Your task to perform on an android device: Search for Mexican restaurants on Maps Image 0: 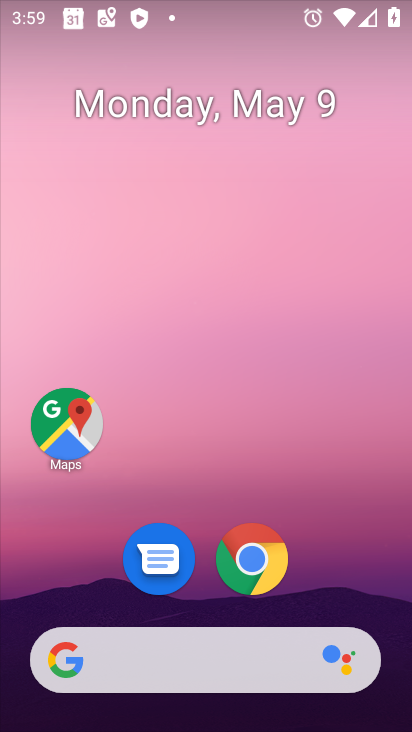
Step 0: drag from (210, 724) to (231, 229)
Your task to perform on an android device: Search for Mexican restaurants on Maps Image 1: 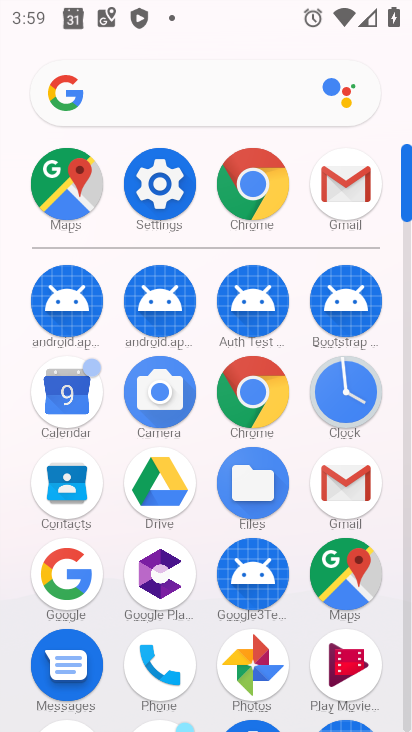
Step 1: click (342, 571)
Your task to perform on an android device: Search for Mexican restaurants on Maps Image 2: 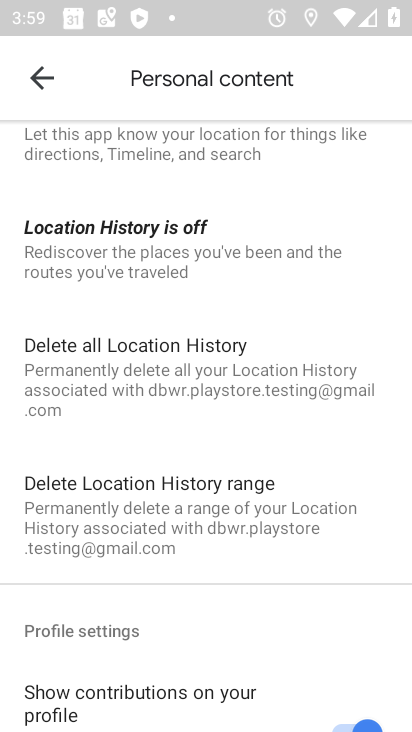
Step 2: click (42, 66)
Your task to perform on an android device: Search for Mexican restaurants on Maps Image 3: 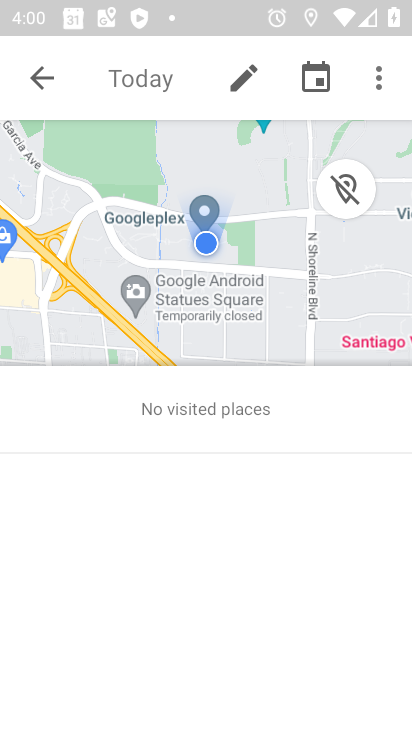
Step 3: click (43, 68)
Your task to perform on an android device: Search for Mexican restaurants on Maps Image 4: 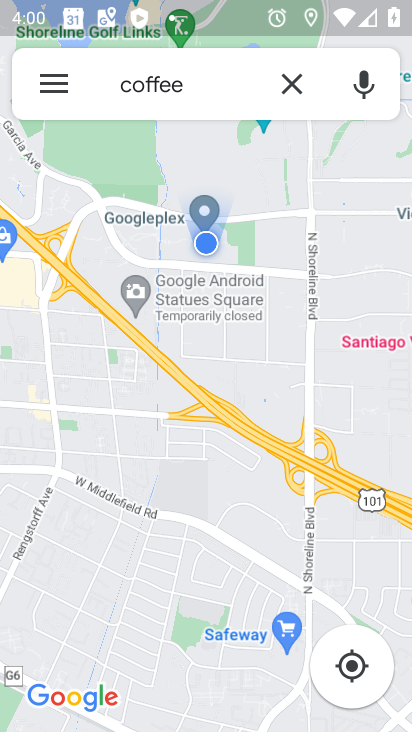
Step 4: click (297, 82)
Your task to perform on an android device: Search for Mexican restaurants on Maps Image 5: 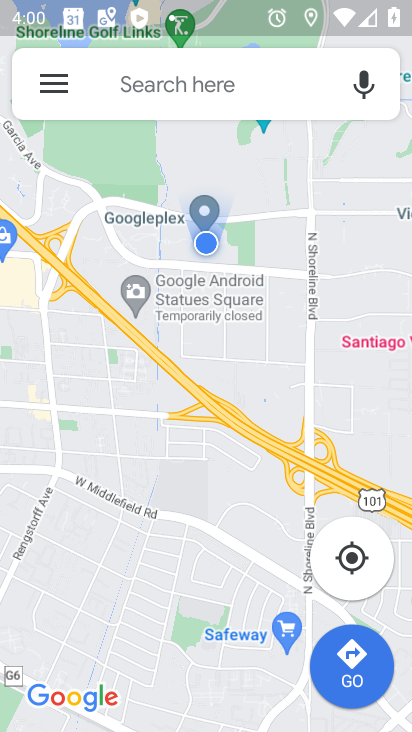
Step 5: click (155, 91)
Your task to perform on an android device: Search for Mexican restaurants on Maps Image 6: 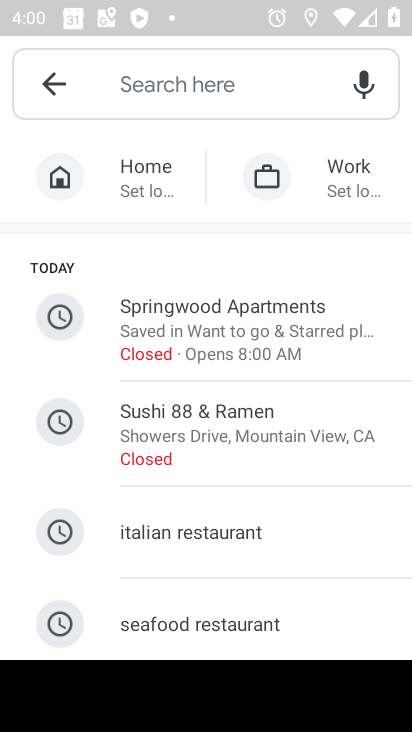
Step 6: type "Mexican restaurants"
Your task to perform on an android device: Search for Mexican restaurants on Maps Image 7: 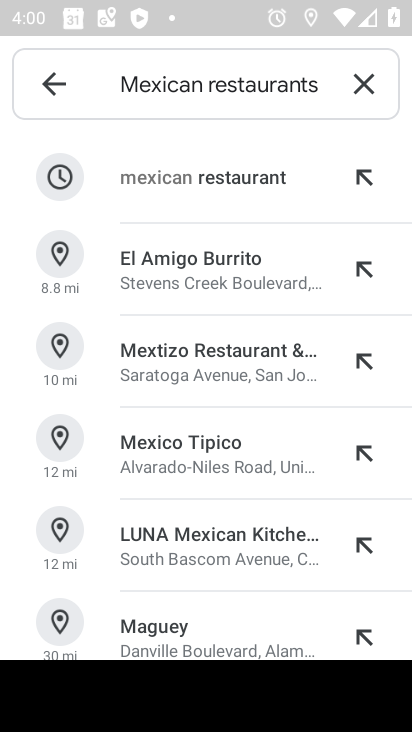
Step 7: click (163, 180)
Your task to perform on an android device: Search for Mexican restaurants on Maps Image 8: 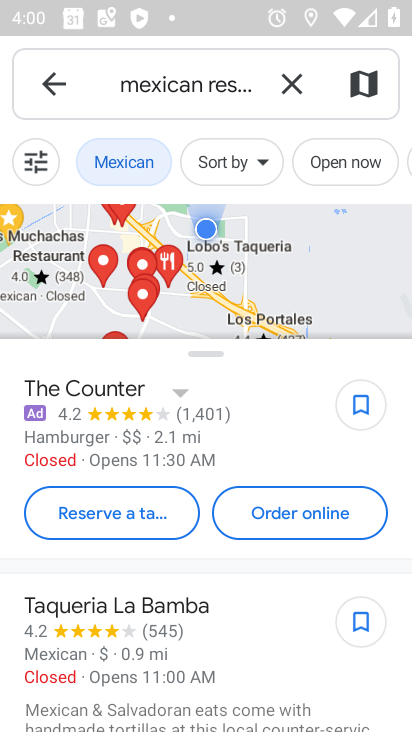
Step 8: task complete